Your task to perform on an android device: What's the weather? Image 0: 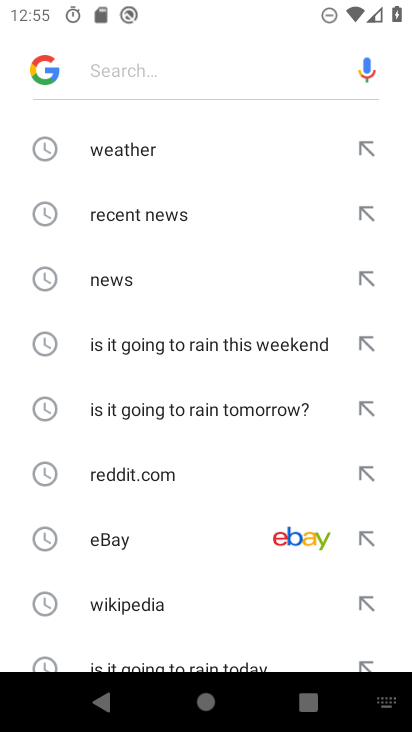
Step 0: click (112, 142)
Your task to perform on an android device: What's the weather? Image 1: 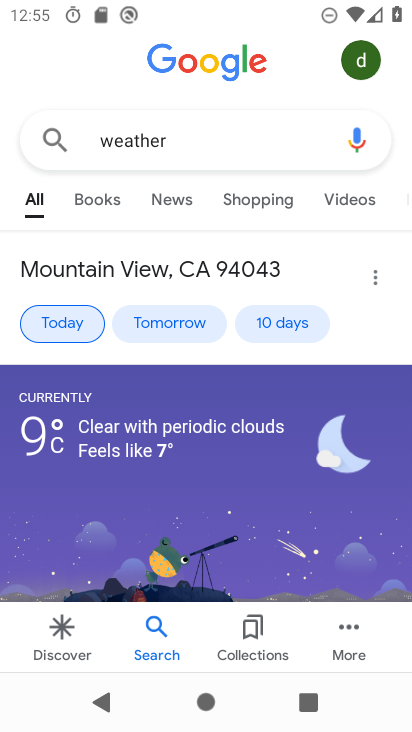
Step 1: task complete